Your task to perform on an android device: turn off improve location accuracy Image 0: 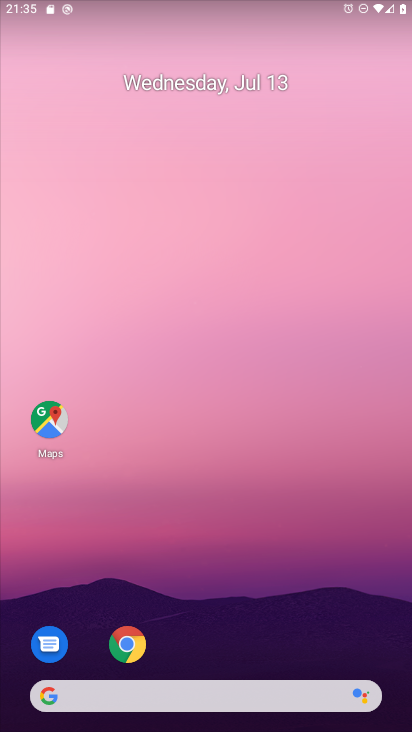
Step 0: press home button
Your task to perform on an android device: turn off improve location accuracy Image 1: 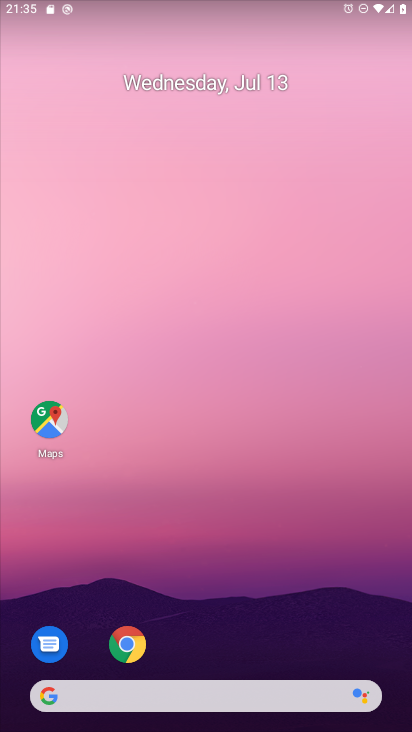
Step 1: drag from (262, 475) to (262, 299)
Your task to perform on an android device: turn off improve location accuracy Image 2: 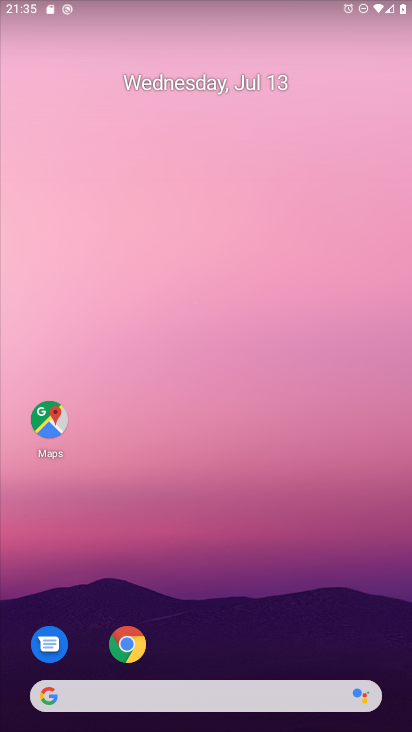
Step 2: drag from (259, 580) to (280, 134)
Your task to perform on an android device: turn off improve location accuracy Image 3: 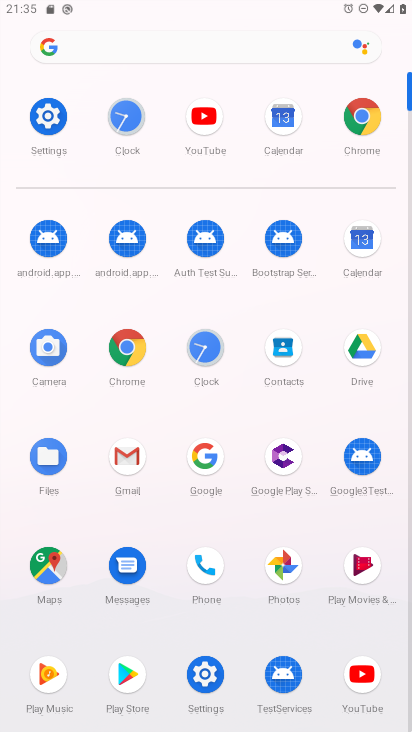
Step 3: click (40, 120)
Your task to perform on an android device: turn off improve location accuracy Image 4: 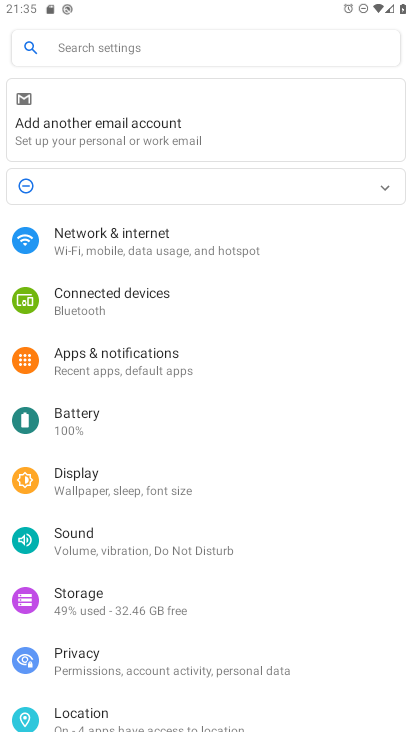
Step 4: drag from (185, 642) to (208, 264)
Your task to perform on an android device: turn off improve location accuracy Image 5: 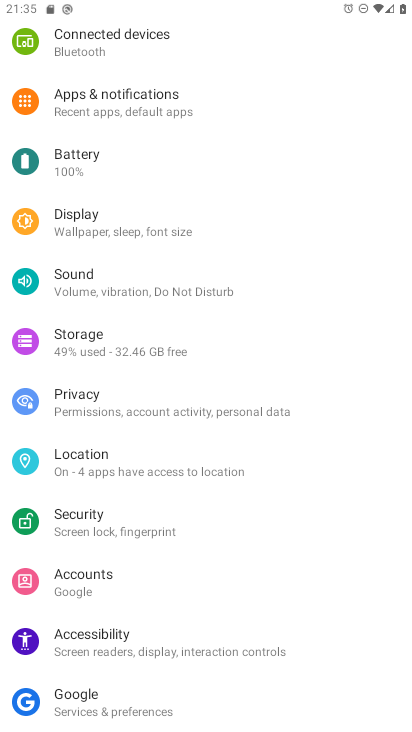
Step 5: click (114, 462)
Your task to perform on an android device: turn off improve location accuracy Image 6: 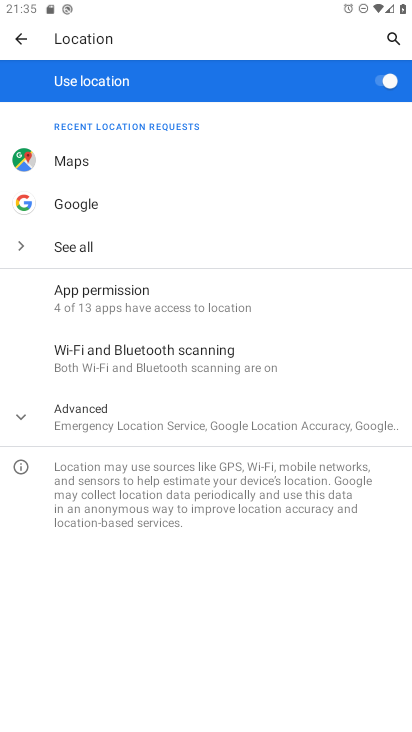
Step 6: click (18, 419)
Your task to perform on an android device: turn off improve location accuracy Image 7: 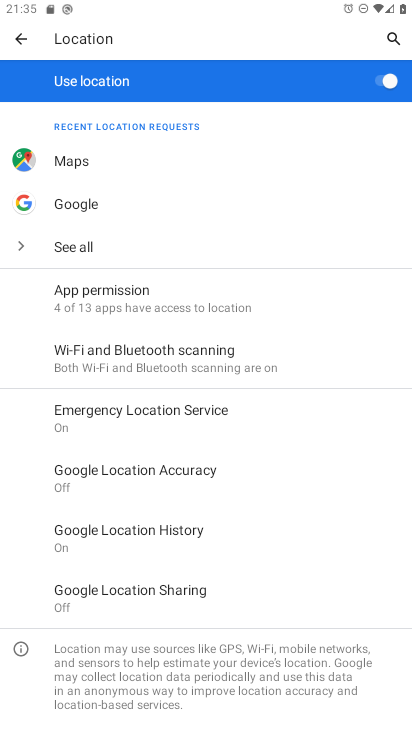
Step 7: click (116, 471)
Your task to perform on an android device: turn off improve location accuracy Image 8: 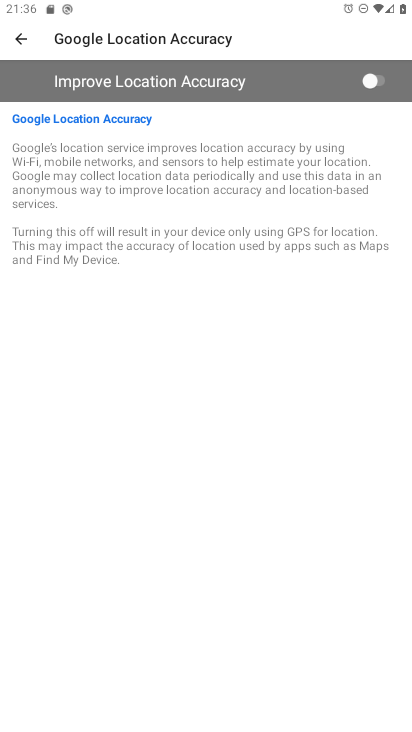
Step 8: task complete